Your task to perform on an android device: Add "dell xps" to the cart on bestbuy, then select checkout. Image 0: 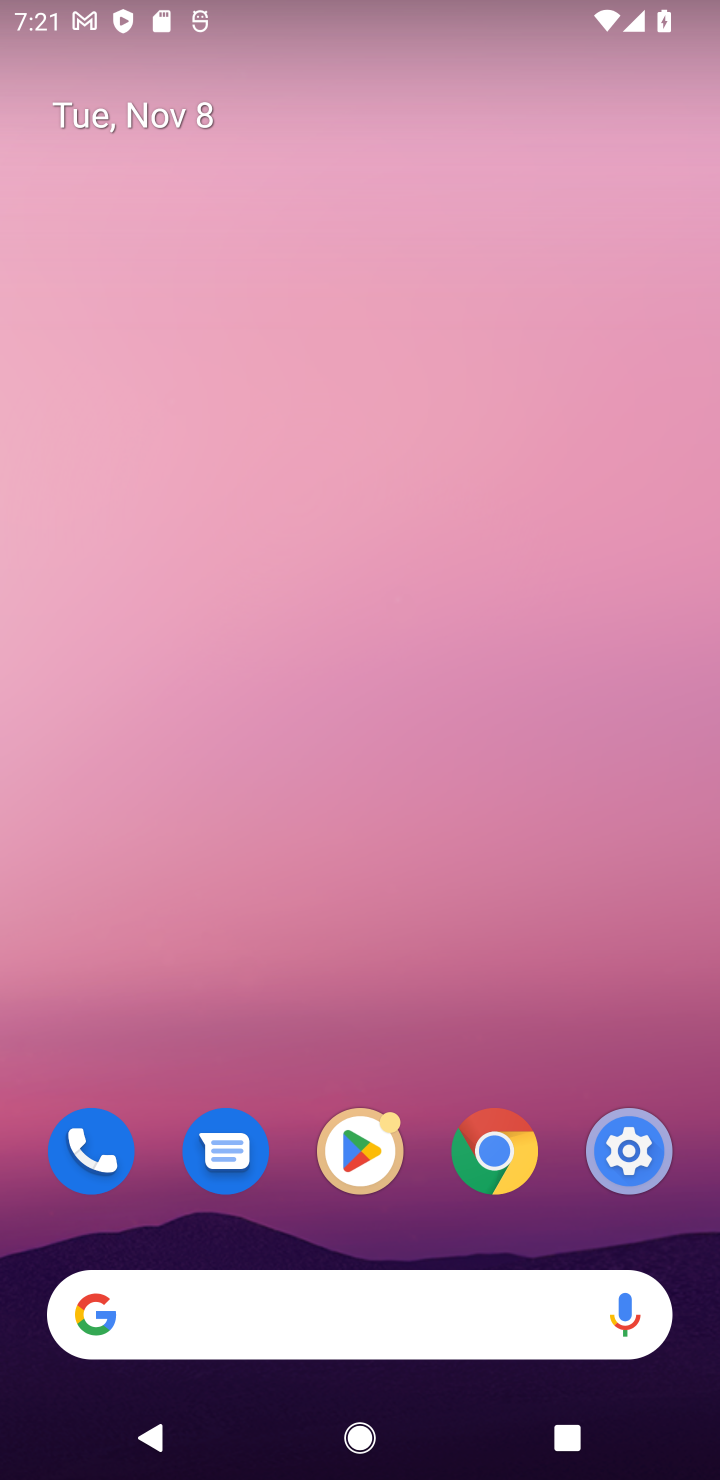
Step 0: click (443, 1357)
Your task to perform on an android device: Add "dell xps" to the cart on bestbuy, then select checkout. Image 1: 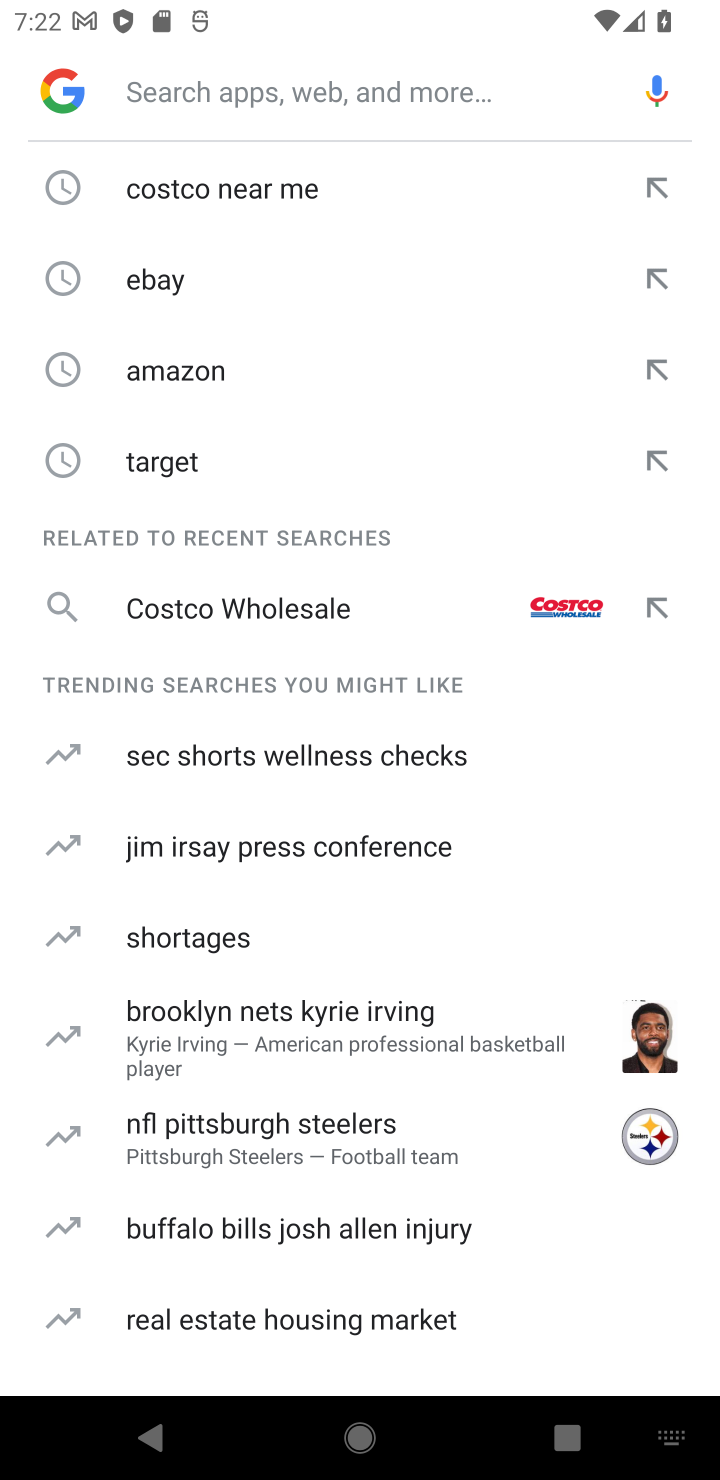
Step 1: type "bestbuy"
Your task to perform on an android device: Add "dell xps" to the cart on bestbuy, then select checkout. Image 2: 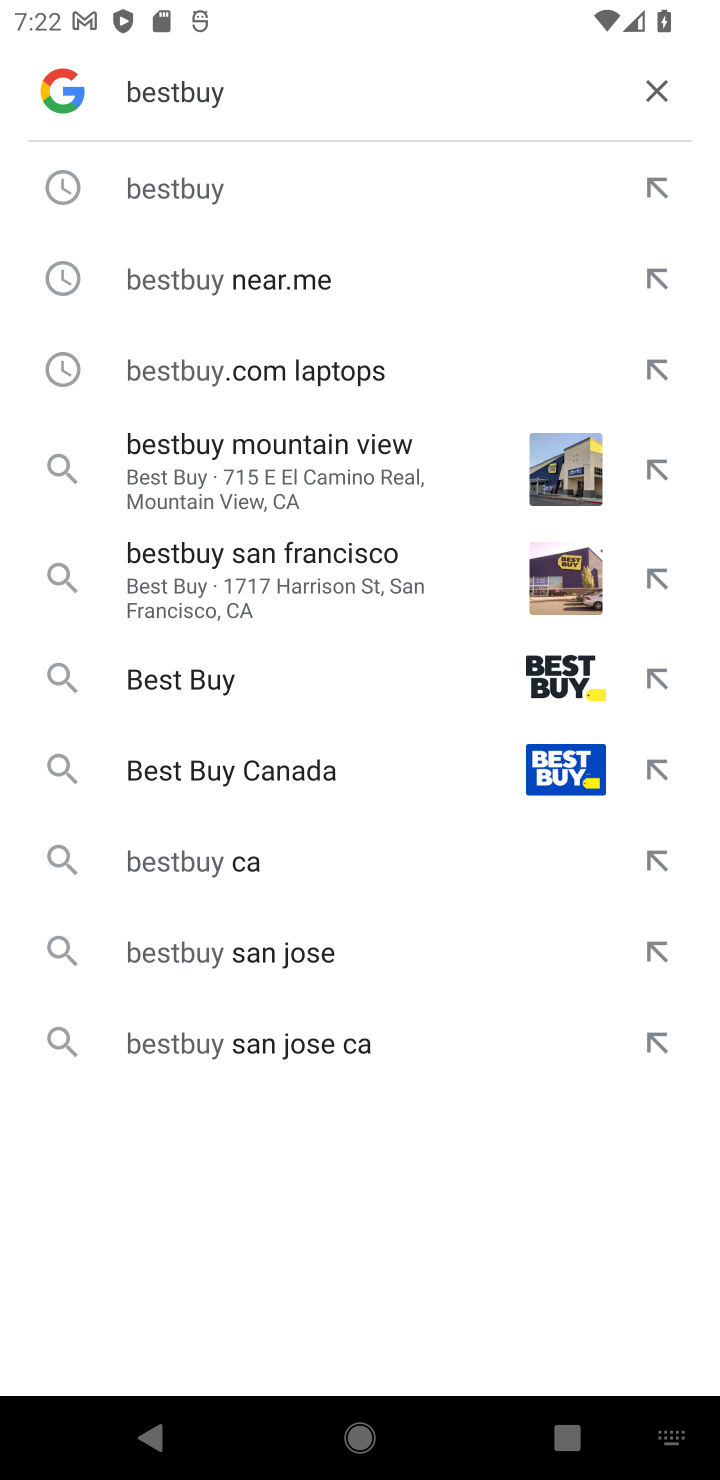
Step 2: click (204, 202)
Your task to perform on an android device: Add "dell xps" to the cart on bestbuy, then select checkout. Image 3: 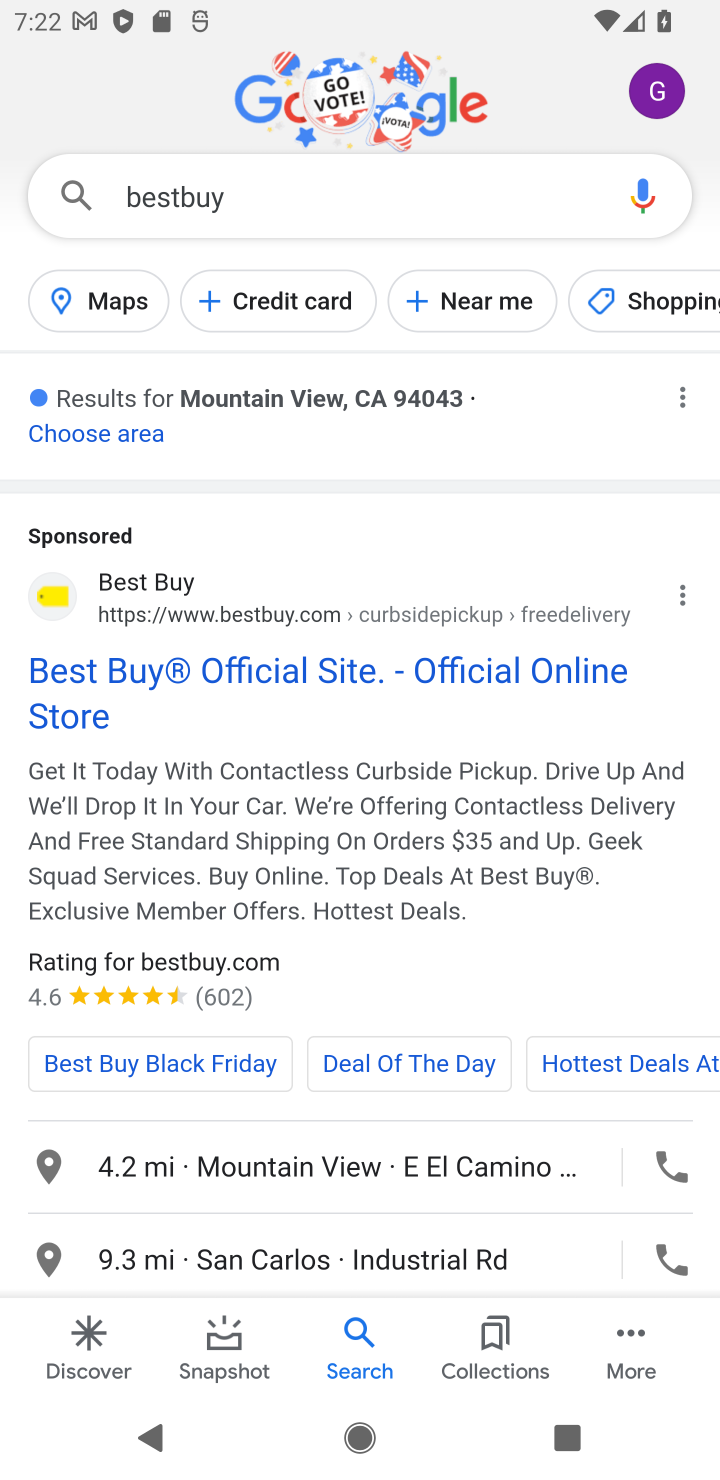
Step 3: click (85, 636)
Your task to perform on an android device: Add "dell xps" to the cart on bestbuy, then select checkout. Image 4: 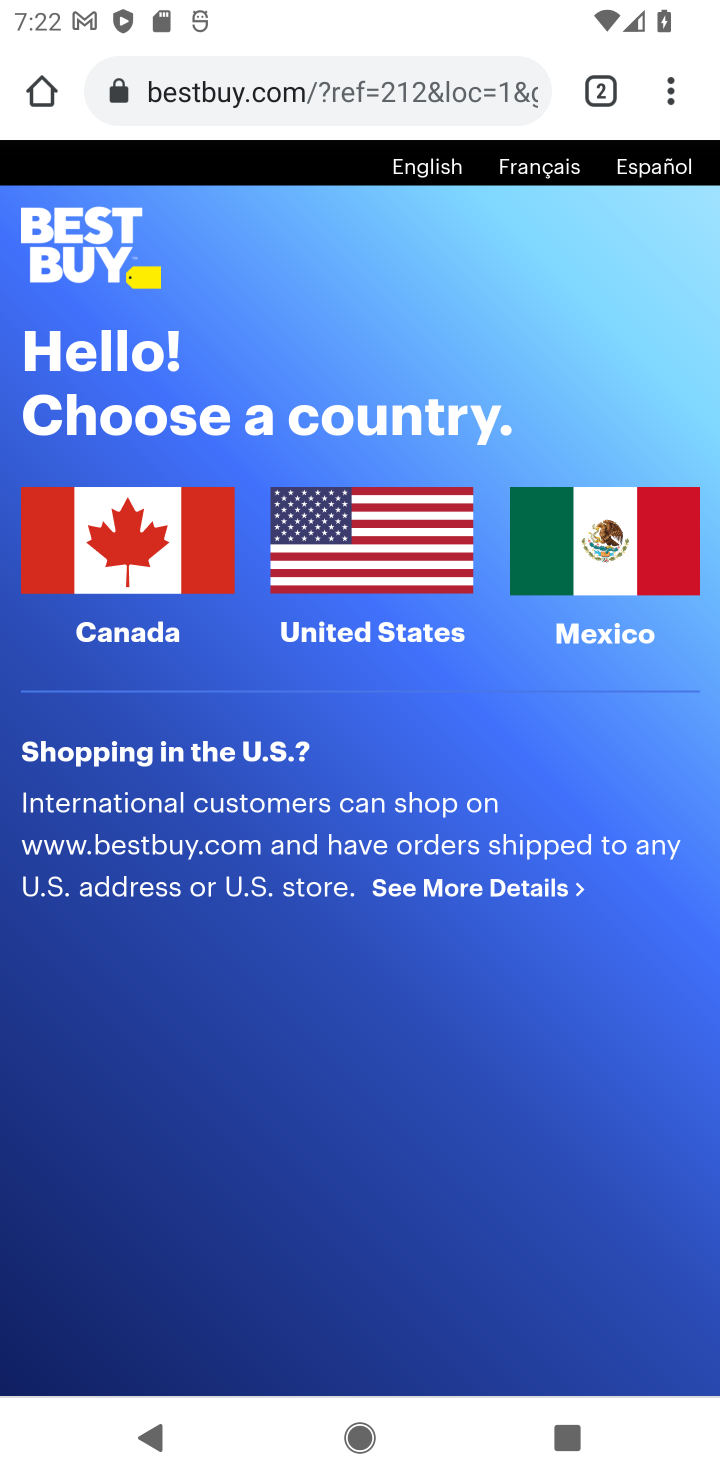
Step 4: click (158, 545)
Your task to perform on an android device: Add "dell xps" to the cart on bestbuy, then select checkout. Image 5: 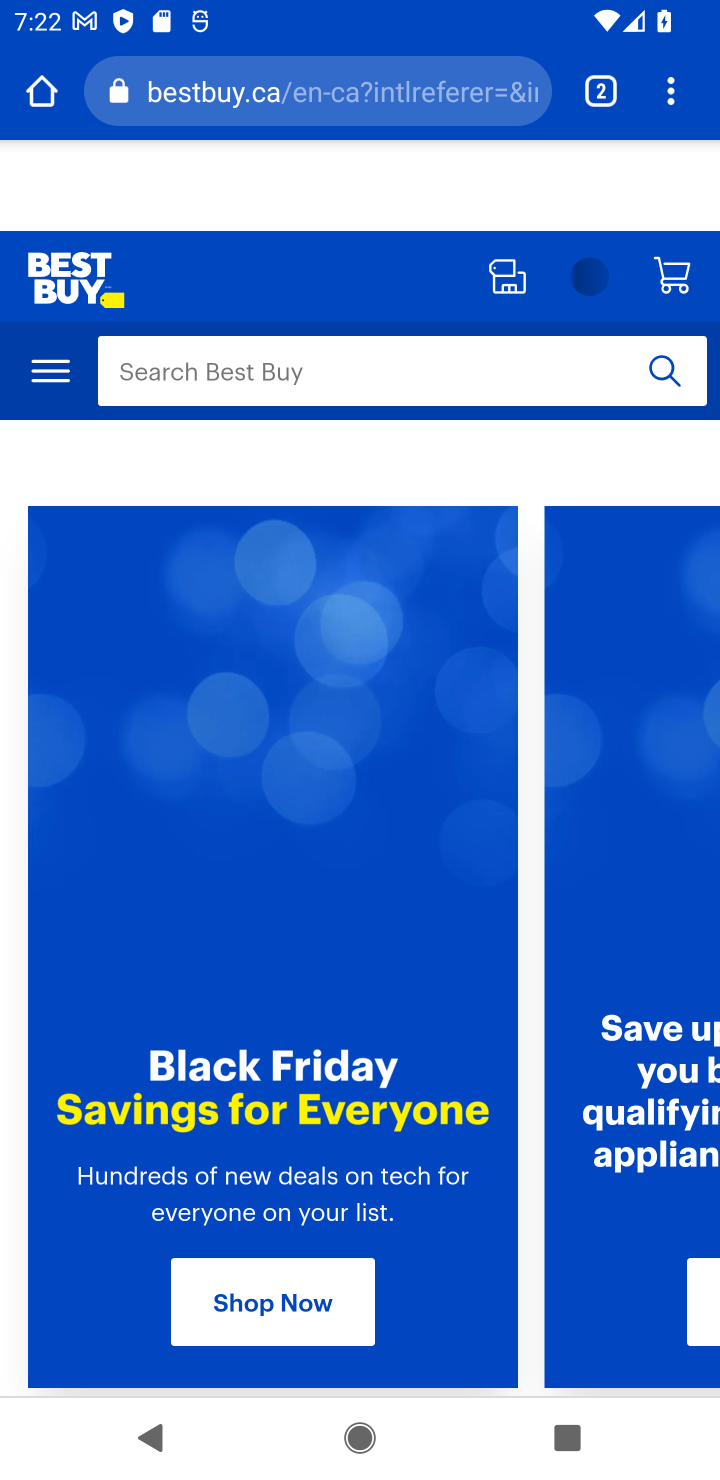
Step 5: click (390, 402)
Your task to perform on an android device: Add "dell xps" to the cart on bestbuy, then select checkout. Image 6: 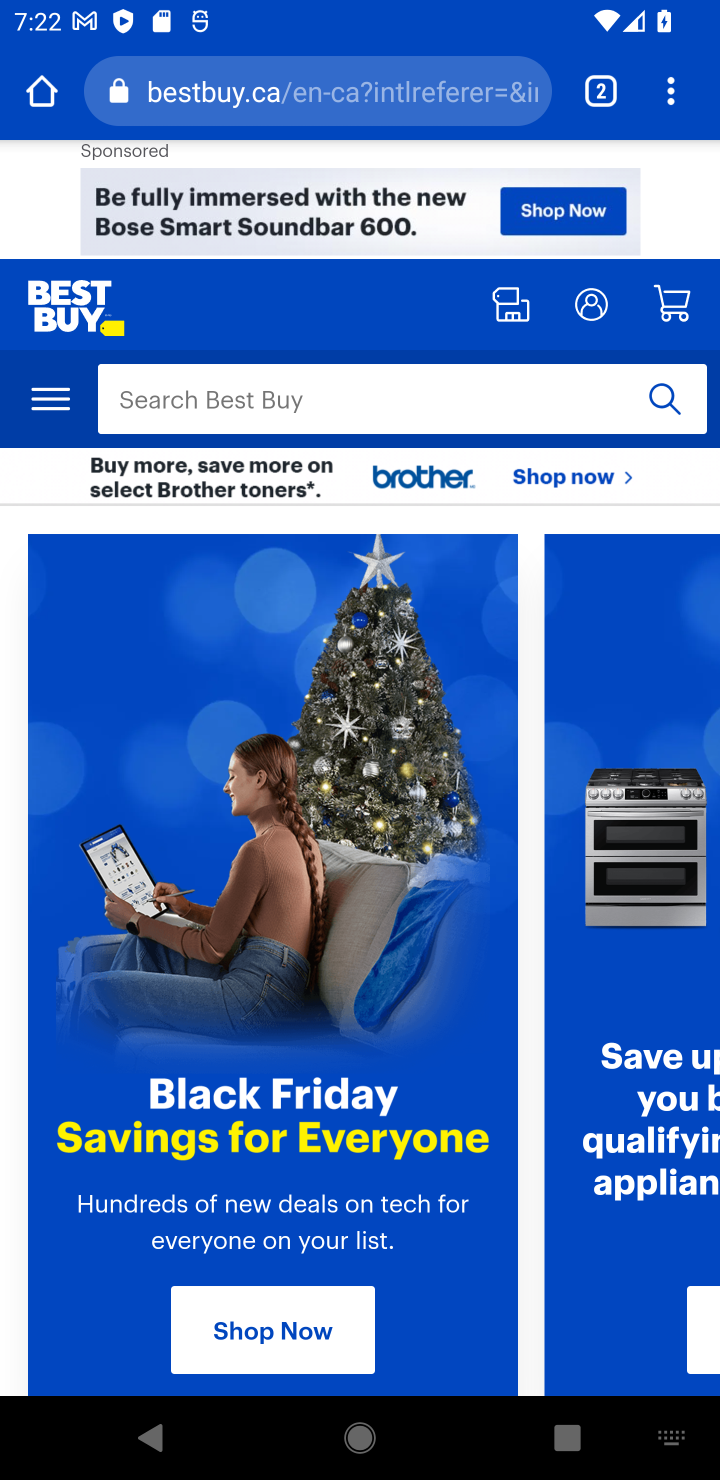
Step 6: type "dell xps"
Your task to perform on an android device: Add "dell xps" to the cart on bestbuy, then select checkout. Image 7: 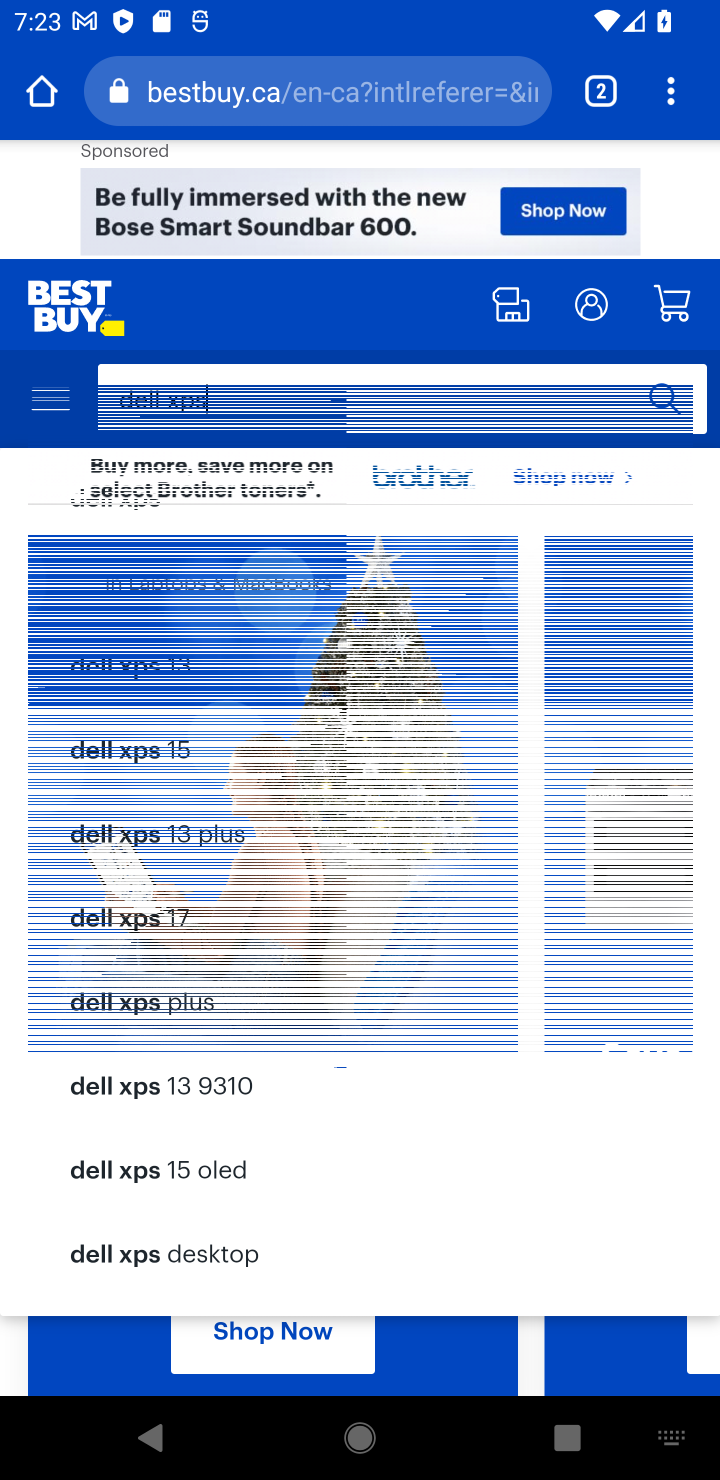
Step 7: click (136, 498)
Your task to perform on an android device: Add "dell xps" to the cart on bestbuy, then select checkout. Image 8: 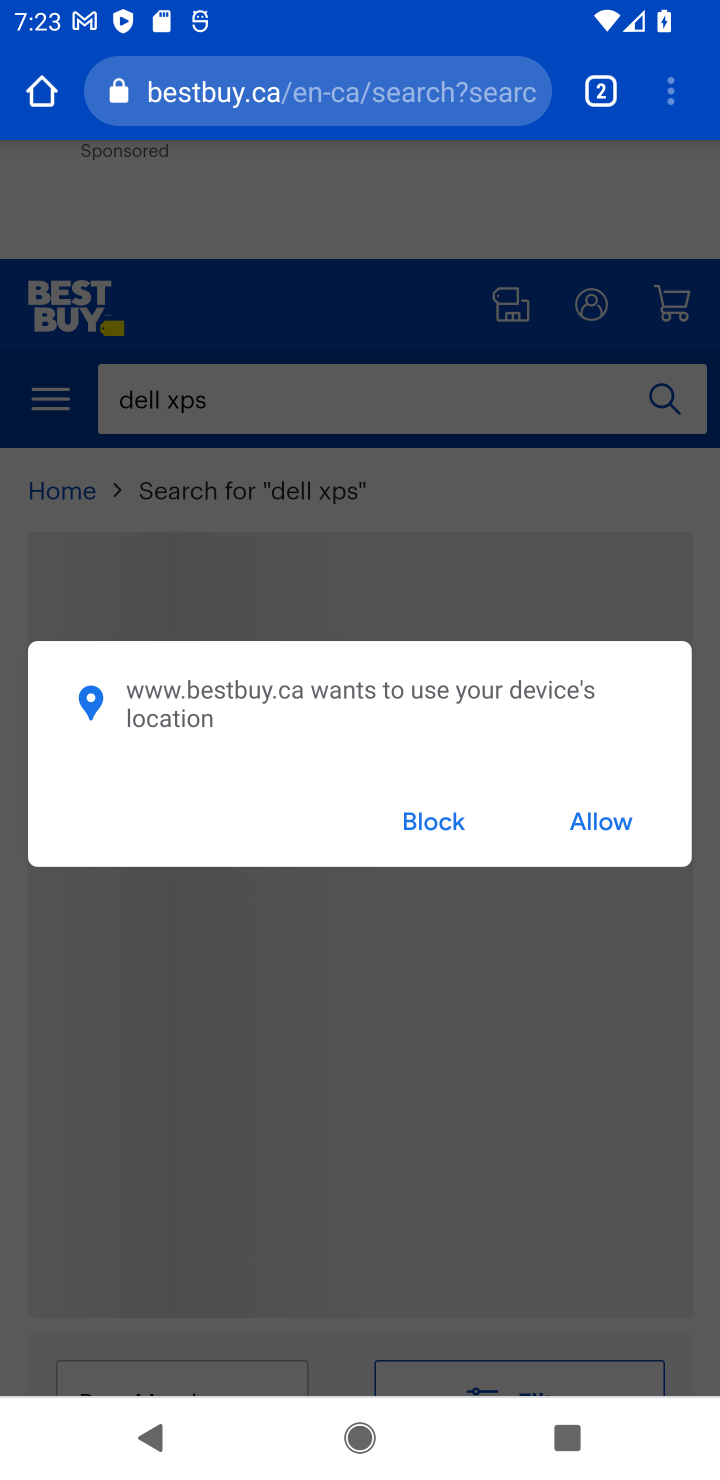
Step 8: click (426, 801)
Your task to perform on an android device: Add "dell xps" to the cart on bestbuy, then select checkout. Image 9: 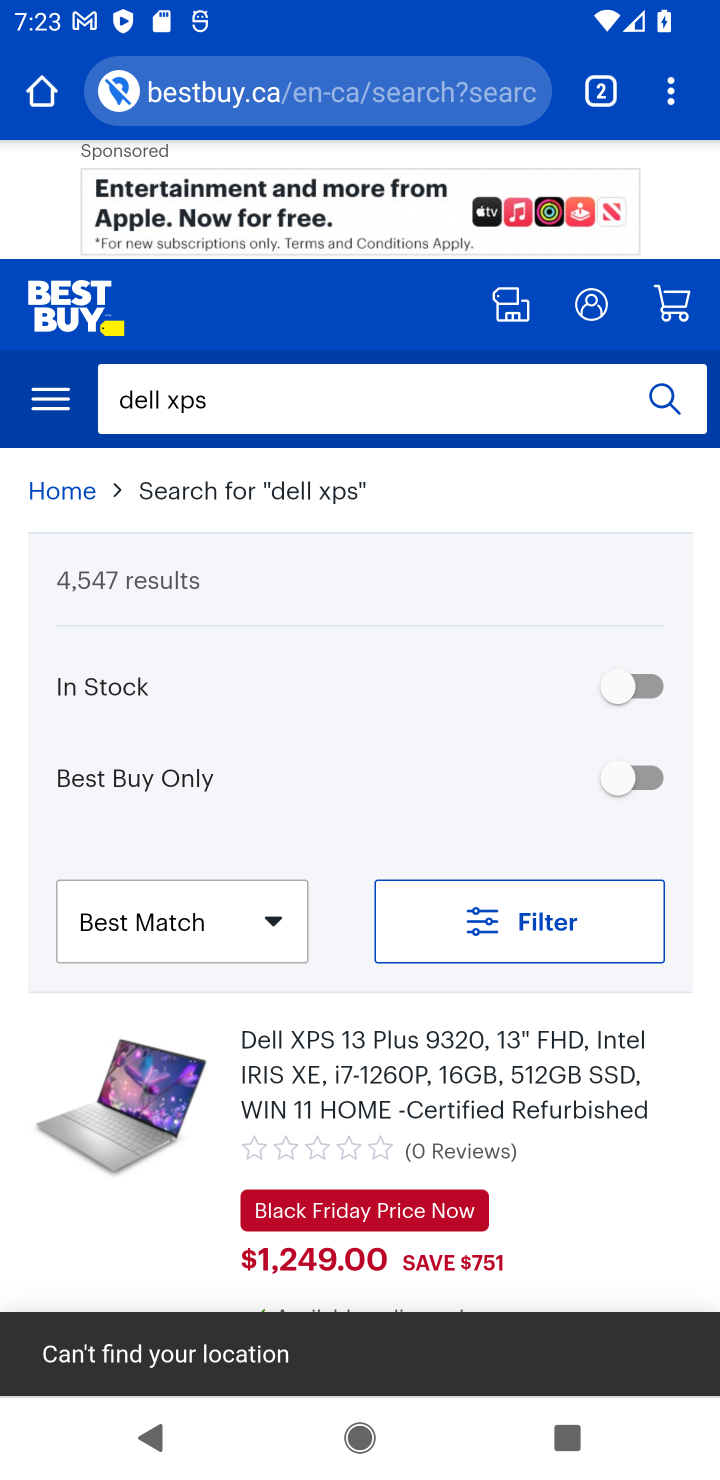
Step 9: task complete